Your task to perform on an android device: check google app version Image 0: 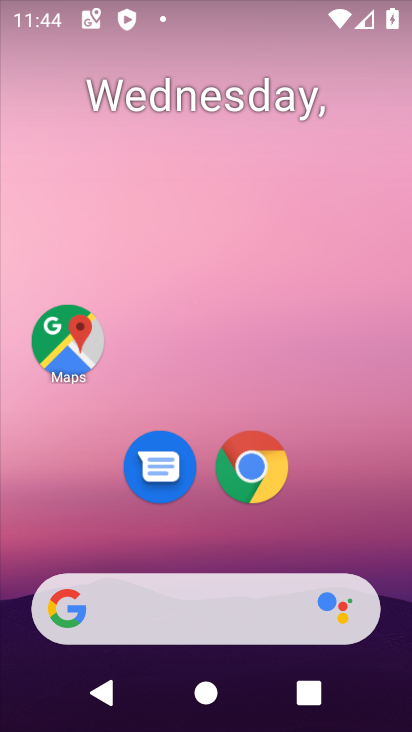
Step 0: click (328, 59)
Your task to perform on an android device: check google app version Image 1: 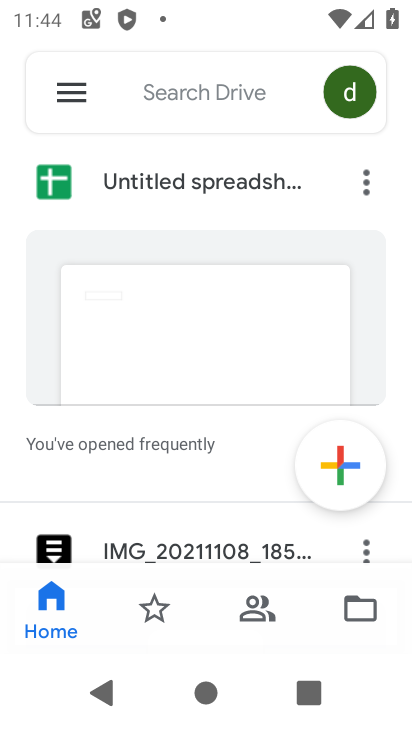
Step 1: press home button
Your task to perform on an android device: check google app version Image 2: 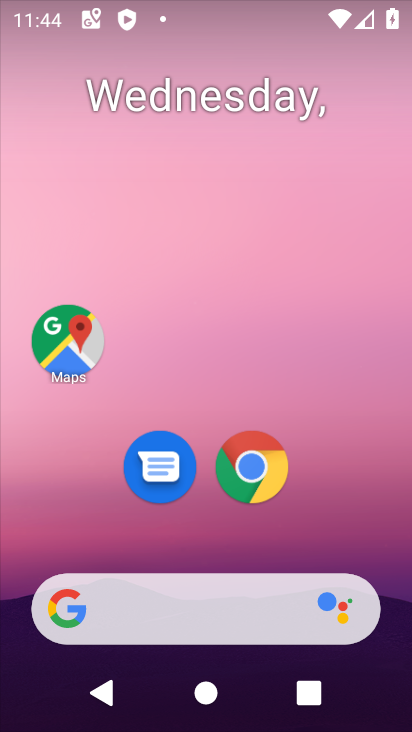
Step 2: drag from (177, 604) to (299, 185)
Your task to perform on an android device: check google app version Image 3: 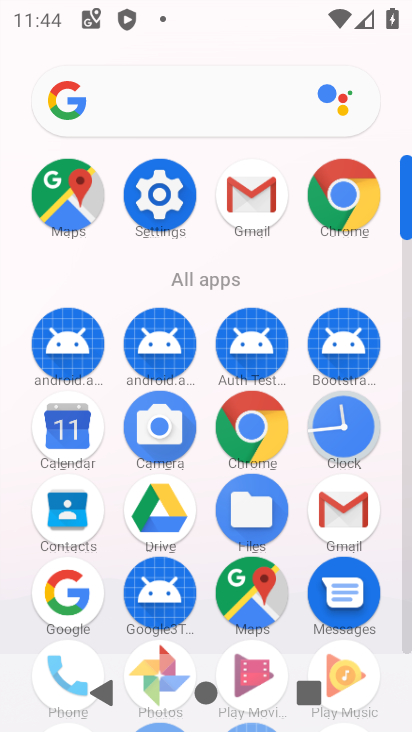
Step 3: drag from (63, 581) to (104, 524)
Your task to perform on an android device: check google app version Image 4: 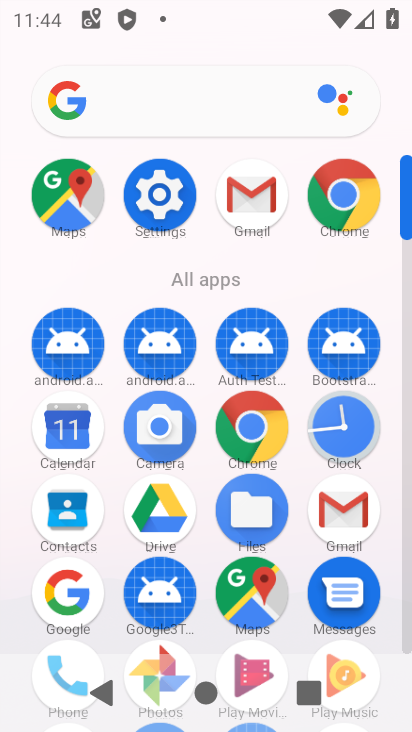
Step 4: click (282, 129)
Your task to perform on an android device: check google app version Image 5: 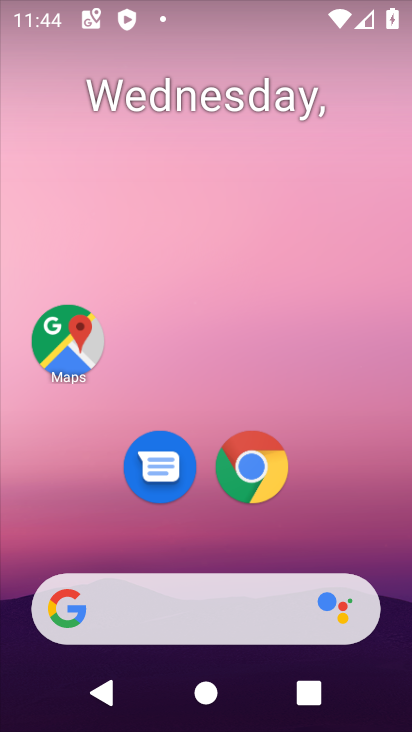
Step 5: drag from (171, 604) to (296, 153)
Your task to perform on an android device: check google app version Image 6: 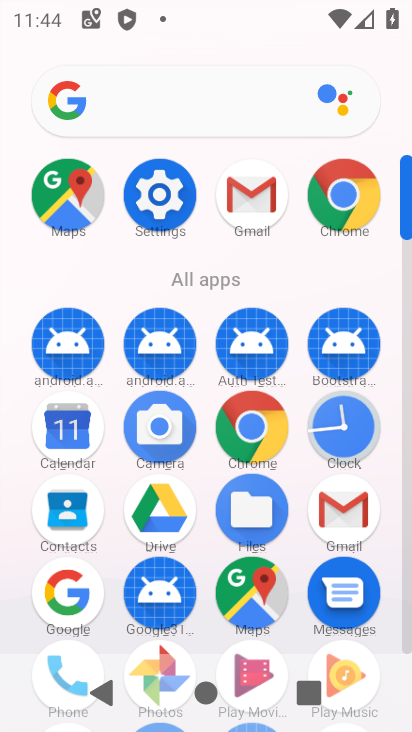
Step 6: drag from (76, 582) to (119, 522)
Your task to perform on an android device: check google app version Image 7: 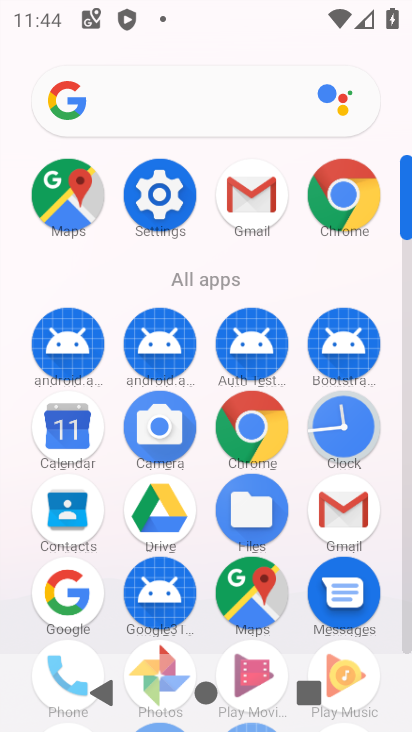
Step 7: click (271, 137)
Your task to perform on an android device: check google app version Image 8: 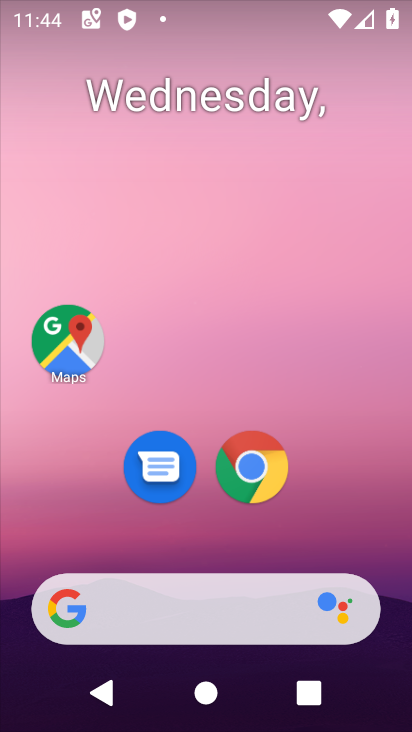
Step 8: drag from (121, 623) to (304, 86)
Your task to perform on an android device: check google app version Image 9: 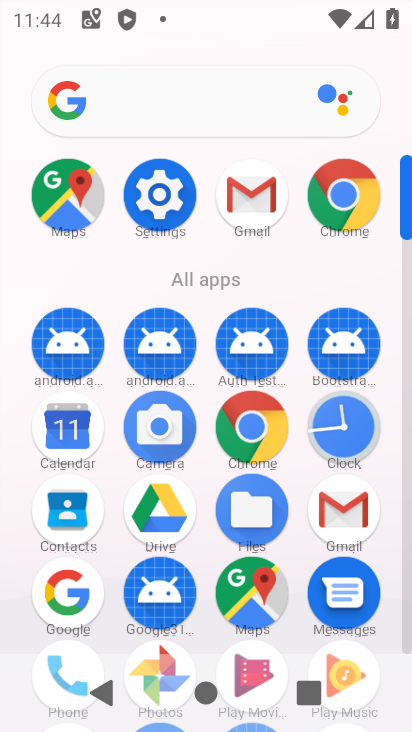
Step 9: drag from (76, 591) to (102, 561)
Your task to perform on an android device: check google app version Image 10: 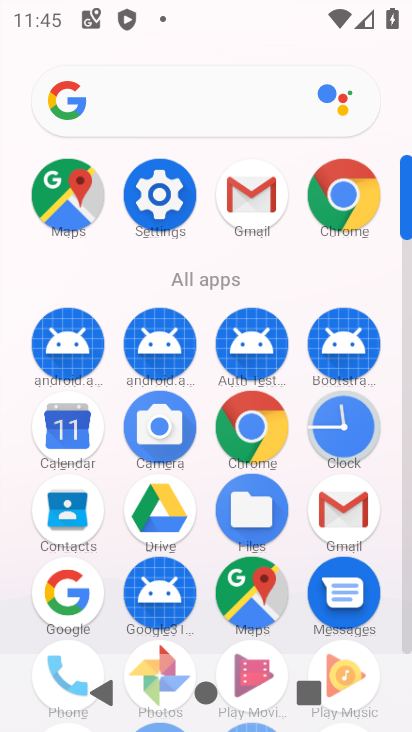
Step 10: click (261, 157)
Your task to perform on an android device: check google app version Image 11: 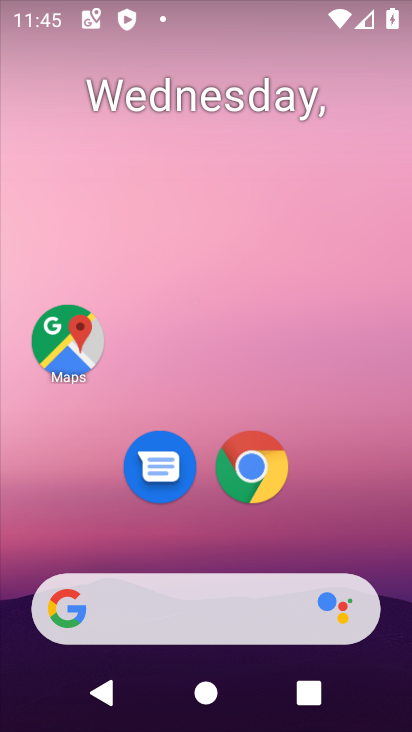
Step 11: drag from (127, 613) to (325, 16)
Your task to perform on an android device: check google app version Image 12: 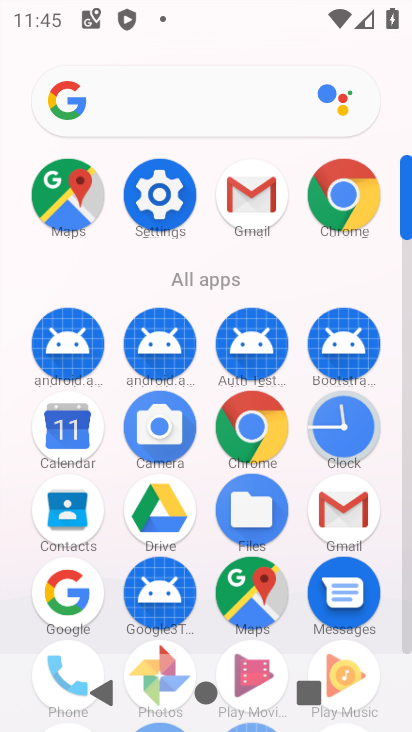
Step 12: drag from (66, 582) to (88, 521)
Your task to perform on an android device: check google app version Image 13: 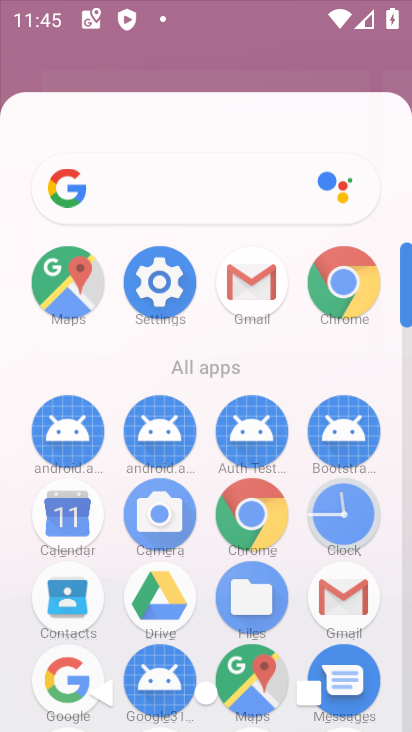
Step 13: click (263, 142)
Your task to perform on an android device: check google app version Image 14: 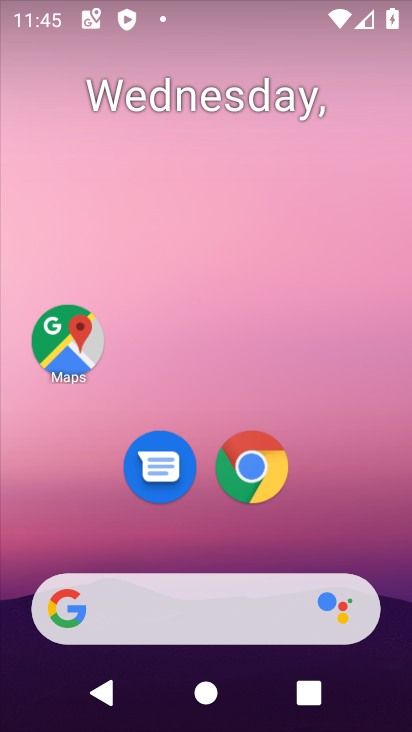
Step 14: drag from (134, 609) to (283, 177)
Your task to perform on an android device: check google app version Image 15: 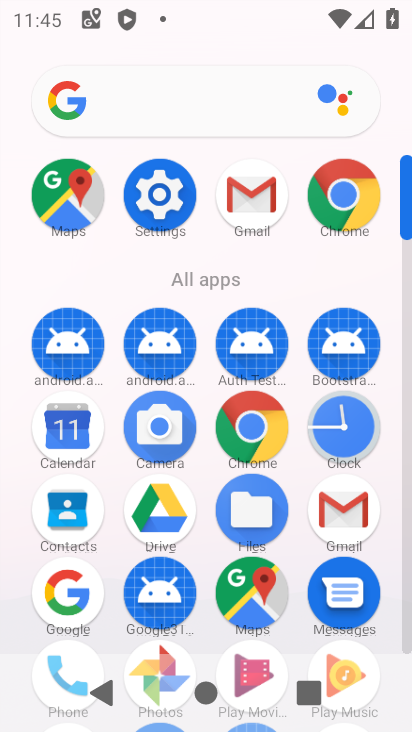
Step 15: drag from (69, 591) to (57, 381)
Your task to perform on an android device: check google app version Image 16: 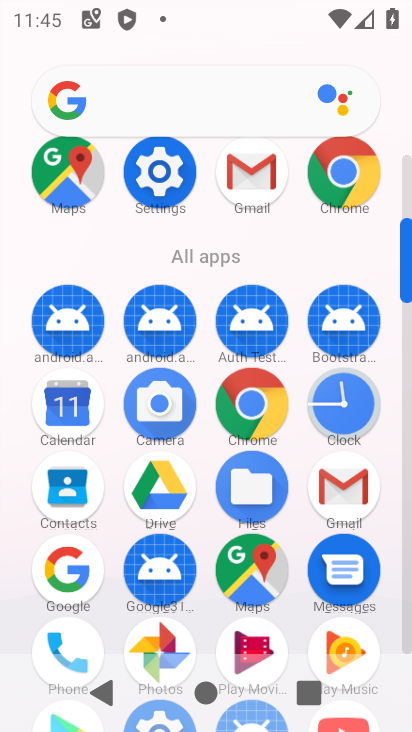
Step 16: click (63, 566)
Your task to perform on an android device: check google app version Image 17: 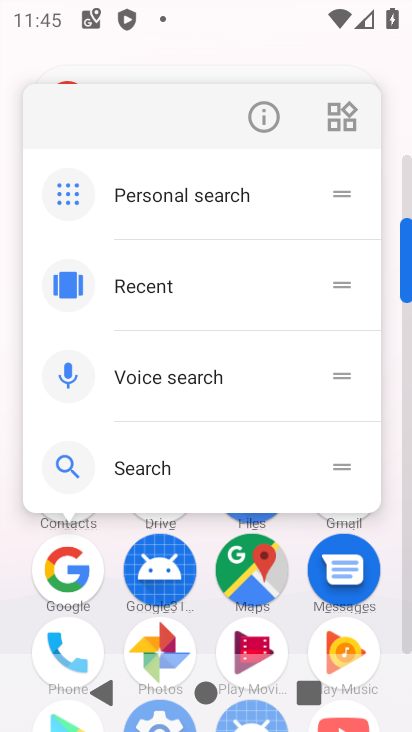
Step 17: click (269, 120)
Your task to perform on an android device: check google app version Image 18: 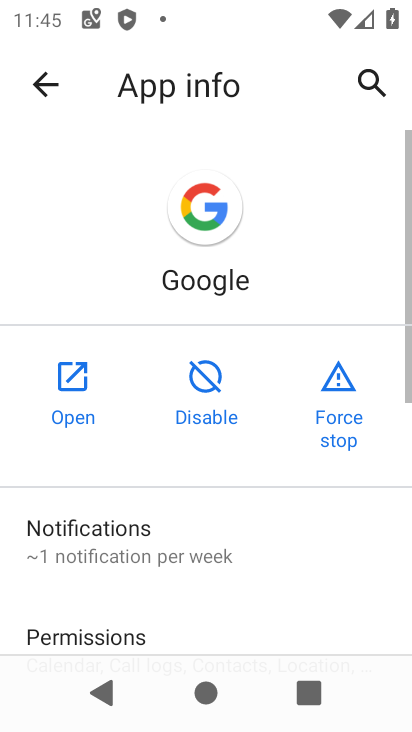
Step 18: drag from (202, 601) to (406, 81)
Your task to perform on an android device: check google app version Image 19: 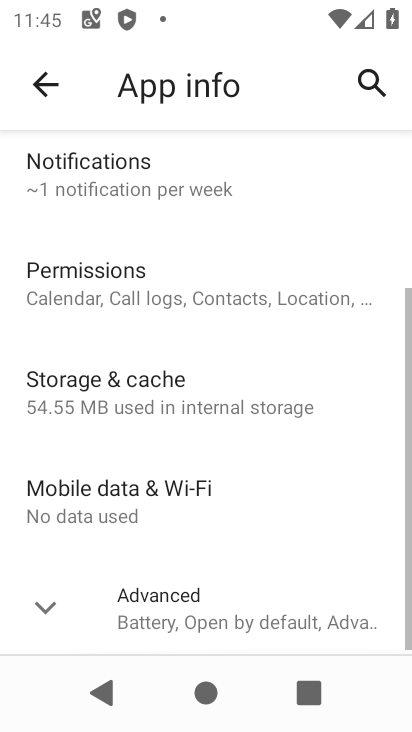
Step 19: click (185, 600)
Your task to perform on an android device: check google app version Image 20: 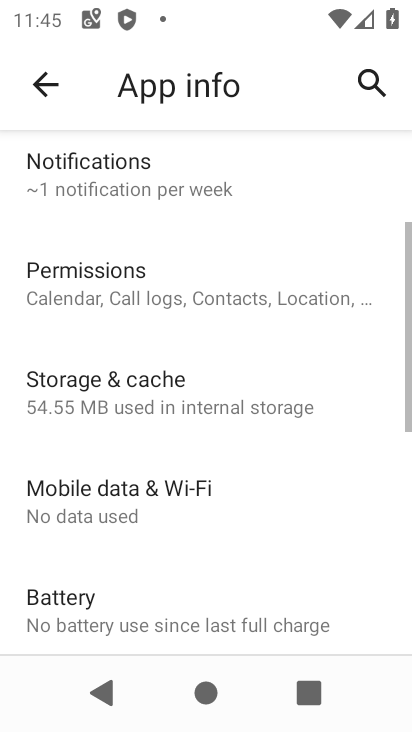
Step 20: task complete